Your task to perform on an android device: What is the capital of Brazil? Image 0: 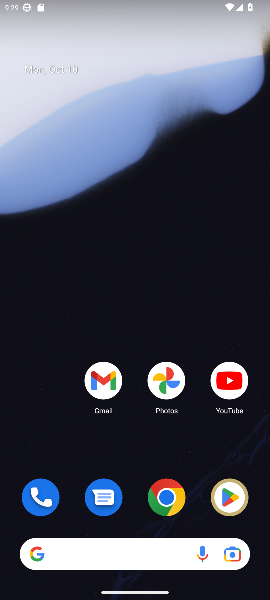
Step 0: drag from (121, 486) to (115, 235)
Your task to perform on an android device: What is the capital of Brazil? Image 1: 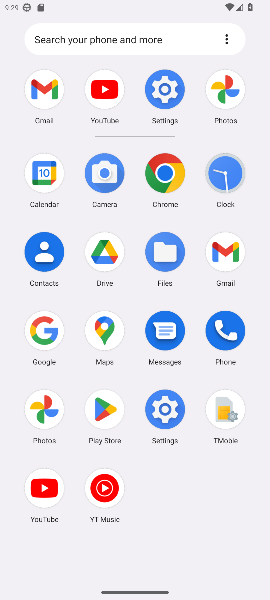
Step 1: click (45, 314)
Your task to perform on an android device: What is the capital of Brazil? Image 2: 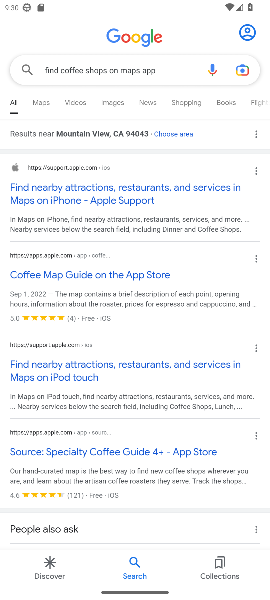
Step 2: click (144, 64)
Your task to perform on an android device: What is the capital of Brazil? Image 3: 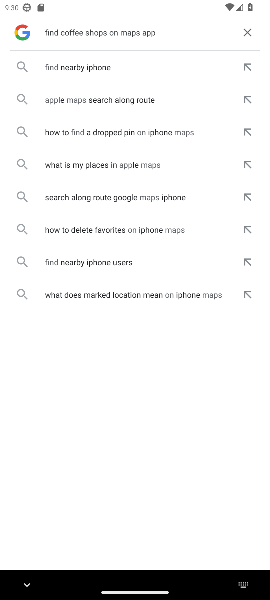
Step 3: click (240, 31)
Your task to perform on an android device: What is the capital of Brazil? Image 4: 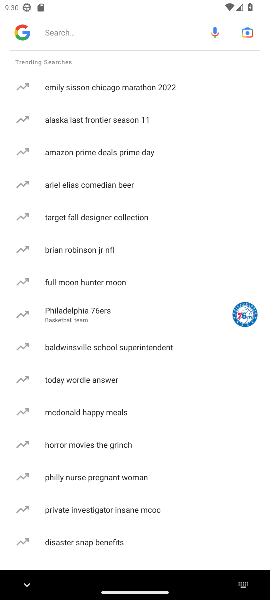
Step 4: click (73, 25)
Your task to perform on an android device: What is the capital of Brazil? Image 5: 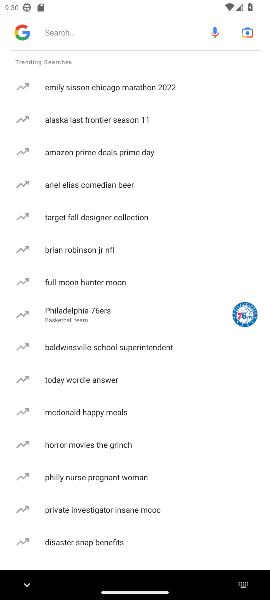
Step 5: type "What is the capital of Brazil? "
Your task to perform on an android device: What is the capital of Brazil? Image 6: 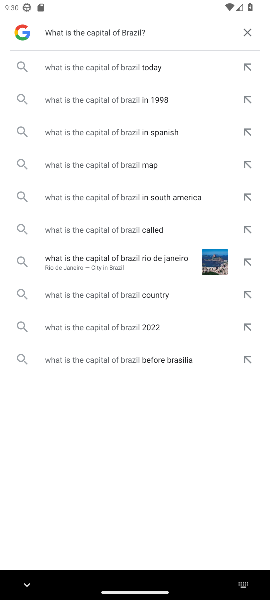
Step 6: click (120, 61)
Your task to perform on an android device: What is the capital of Brazil? Image 7: 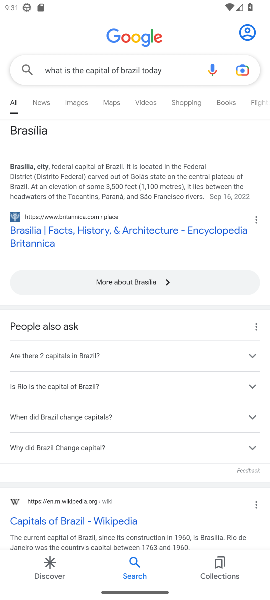
Step 7: task complete